Your task to perform on an android device: How much does a 2x4x8 board cost at Lowes? Image 0: 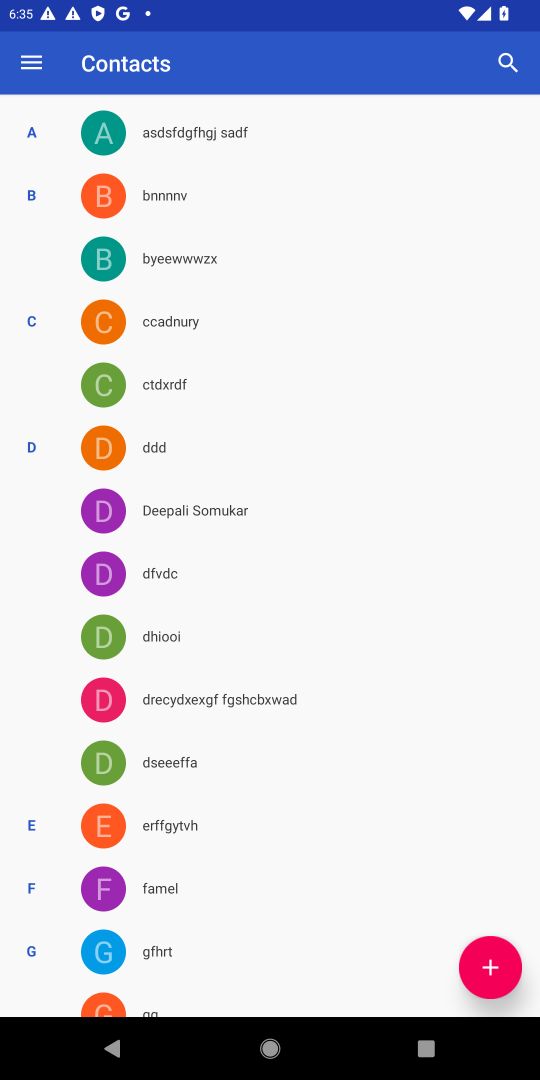
Step 0: press home button
Your task to perform on an android device: How much does a 2x4x8 board cost at Lowes? Image 1: 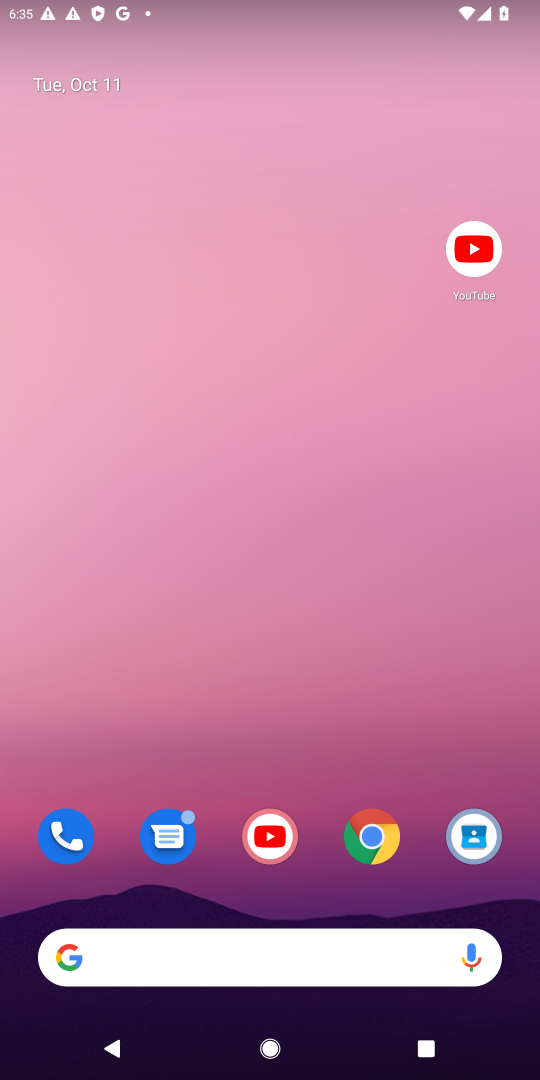
Step 1: click (370, 836)
Your task to perform on an android device: How much does a 2x4x8 board cost at Lowes? Image 2: 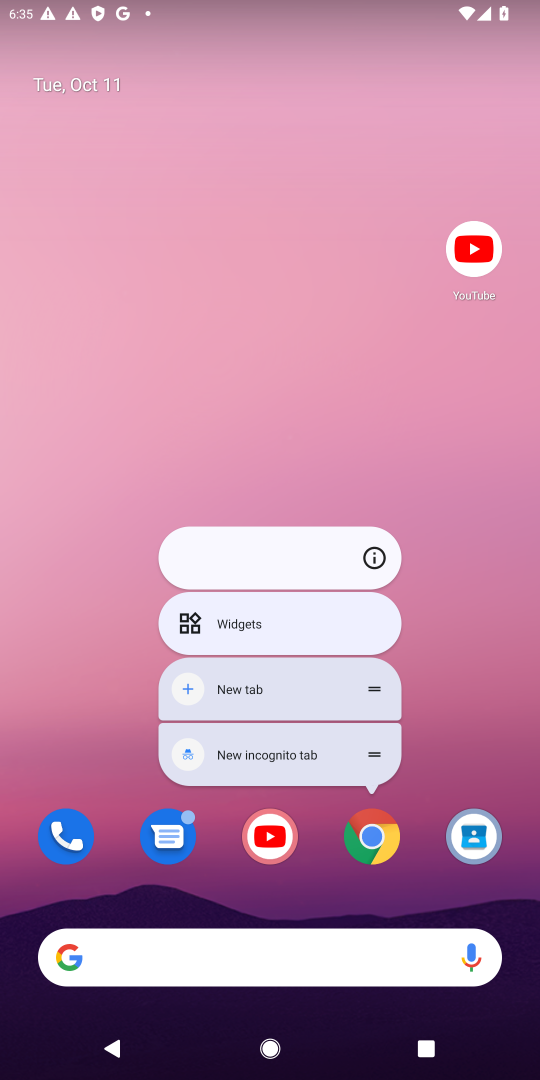
Step 2: click (367, 841)
Your task to perform on an android device: How much does a 2x4x8 board cost at Lowes? Image 3: 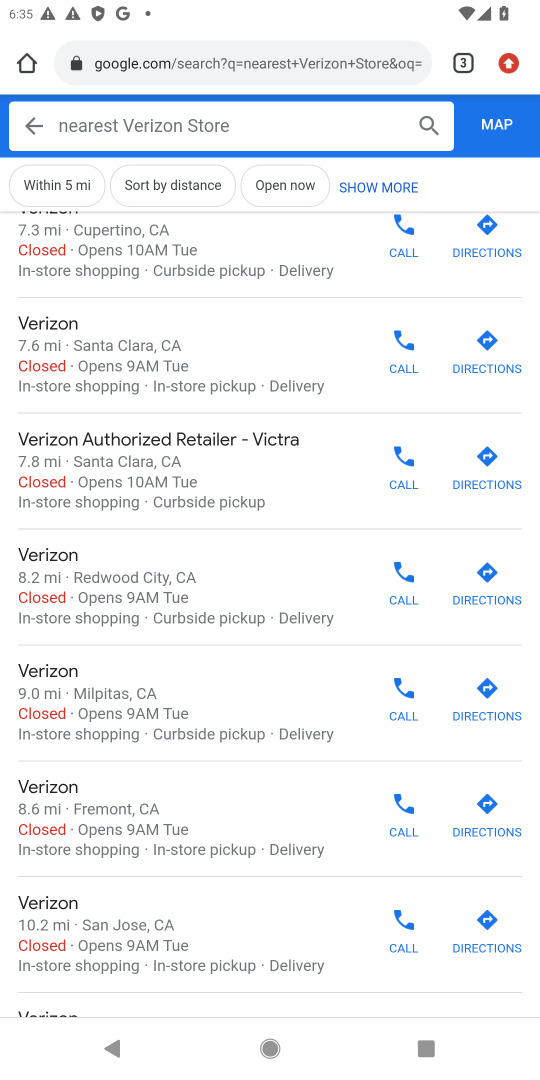
Step 3: click (352, 57)
Your task to perform on an android device: How much does a 2x4x8 board cost at Lowes? Image 4: 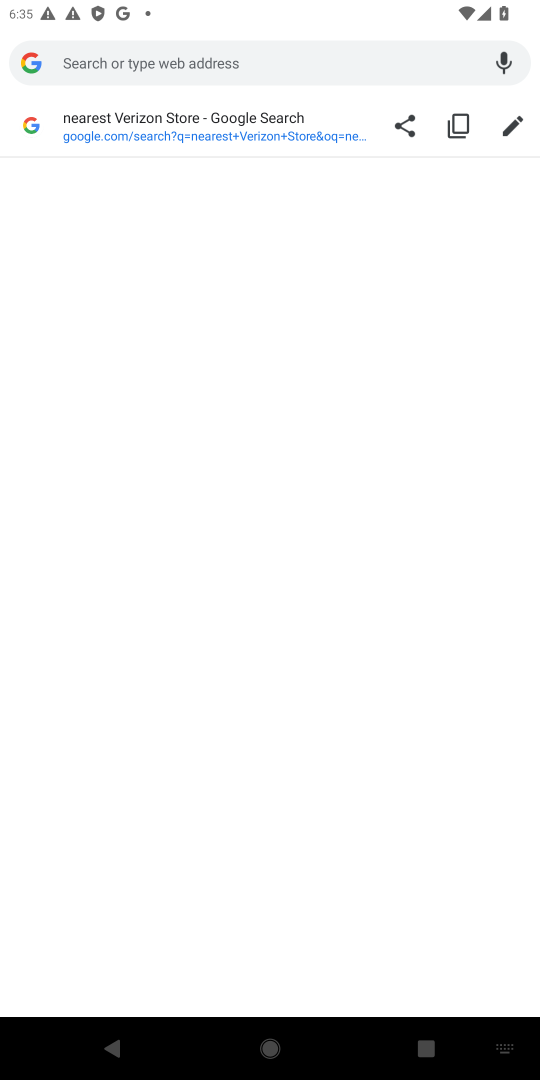
Step 4: type "How much does a 2x4x8 board cost at Lowes"
Your task to perform on an android device: How much does a 2x4x8 board cost at Lowes? Image 5: 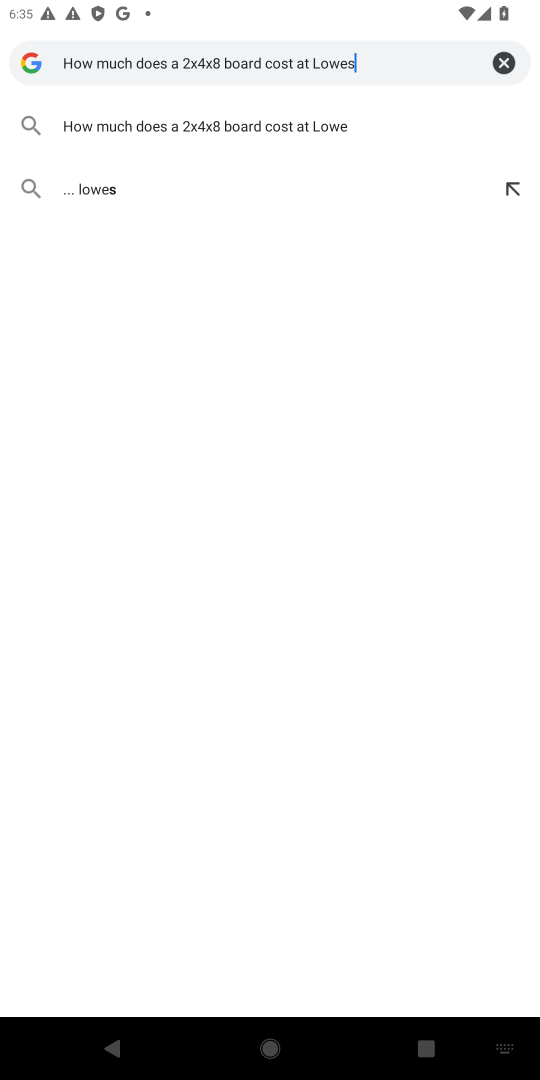
Step 5: press enter
Your task to perform on an android device: How much does a 2x4x8 board cost at Lowes? Image 6: 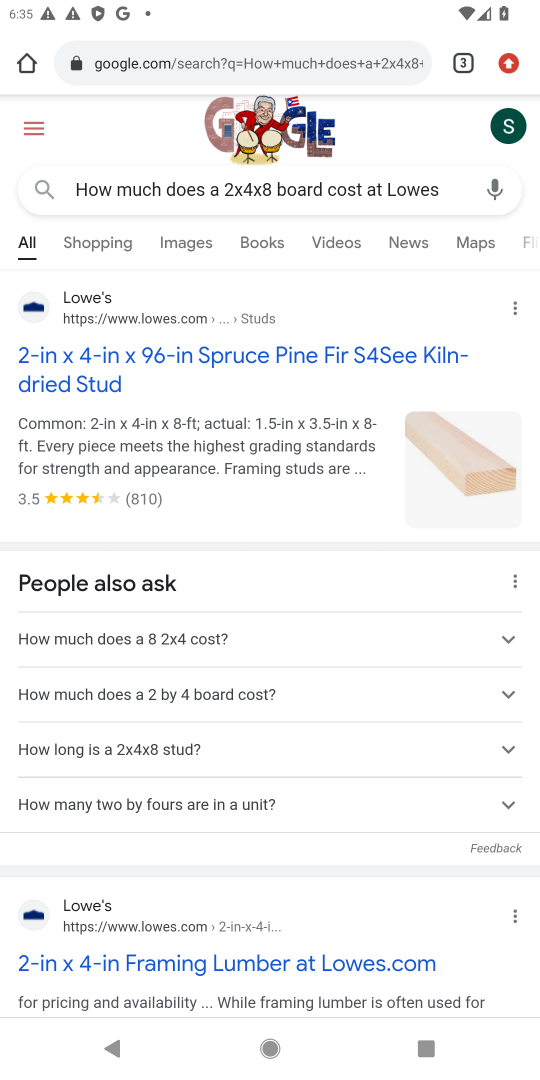
Step 6: drag from (261, 906) to (377, 553)
Your task to perform on an android device: How much does a 2x4x8 board cost at Lowes? Image 7: 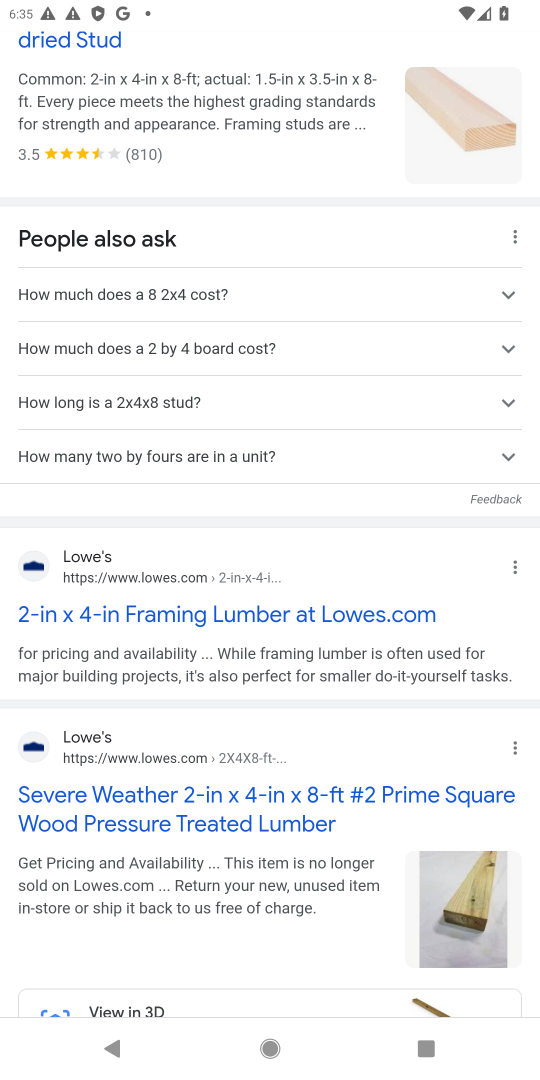
Step 7: click (121, 619)
Your task to perform on an android device: How much does a 2x4x8 board cost at Lowes? Image 8: 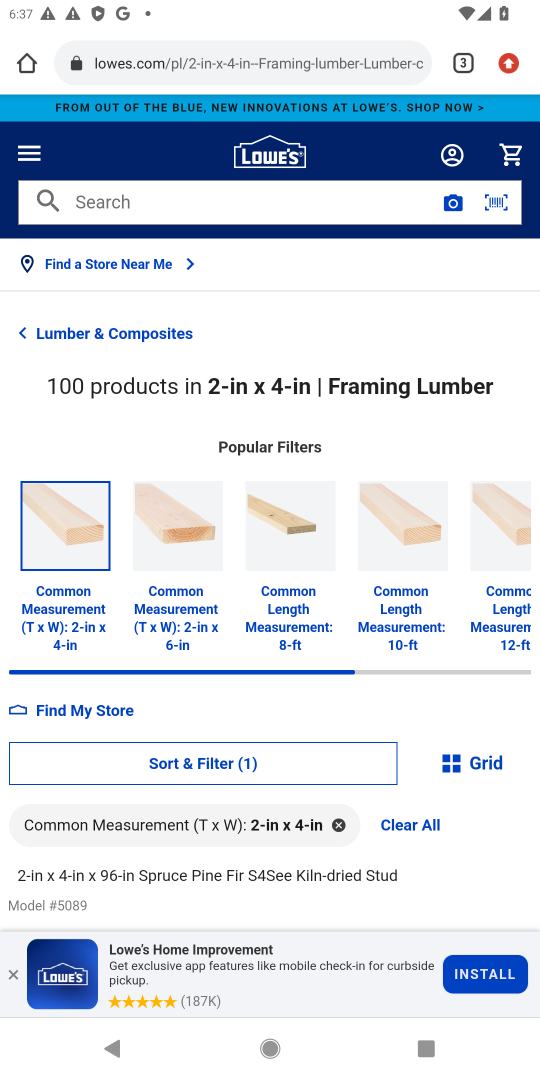
Step 8: task complete